Your task to perform on an android device: read, delete, or share a saved page in the chrome app Image 0: 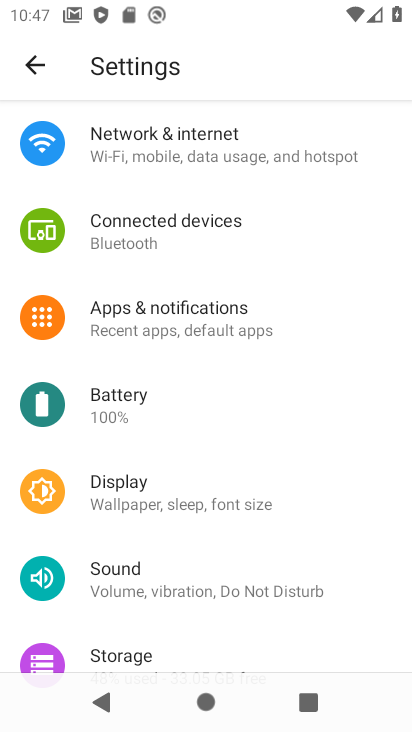
Step 0: press home button
Your task to perform on an android device: read, delete, or share a saved page in the chrome app Image 1: 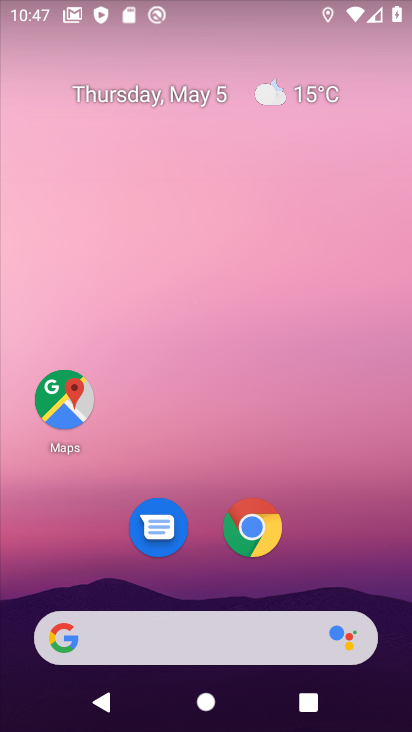
Step 1: click (200, 563)
Your task to perform on an android device: read, delete, or share a saved page in the chrome app Image 2: 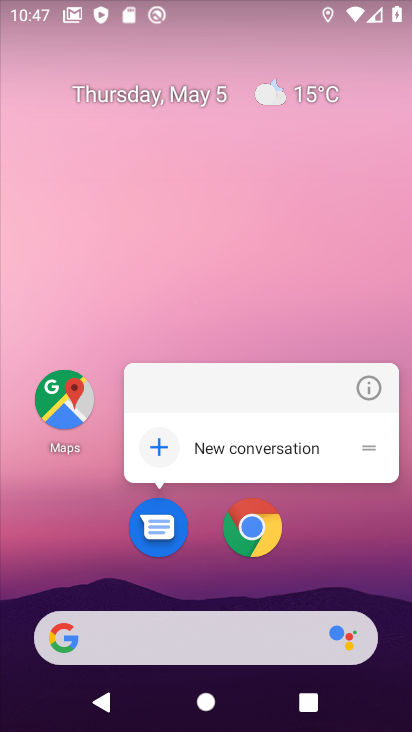
Step 2: click (258, 531)
Your task to perform on an android device: read, delete, or share a saved page in the chrome app Image 3: 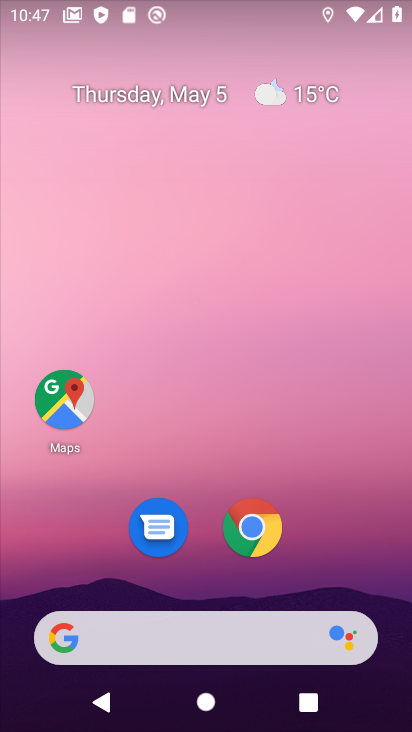
Step 3: click (258, 536)
Your task to perform on an android device: read, delete, or share a saved page in the chrome app Image 4: 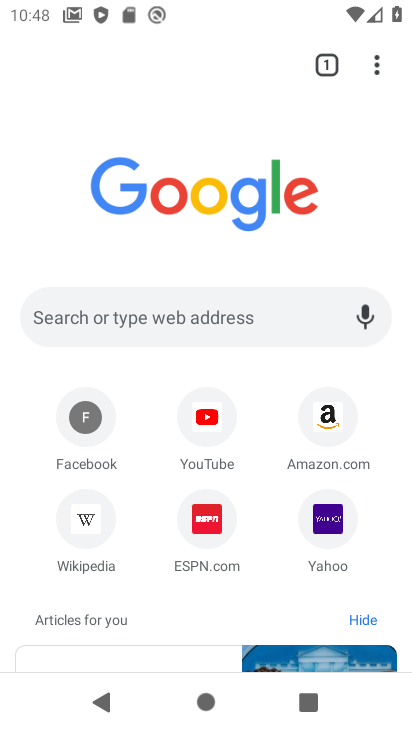
Step 4: click (380, 71)
Your task to perform on an android device: read, delete, or share a saved page in the chrome app Image 5: 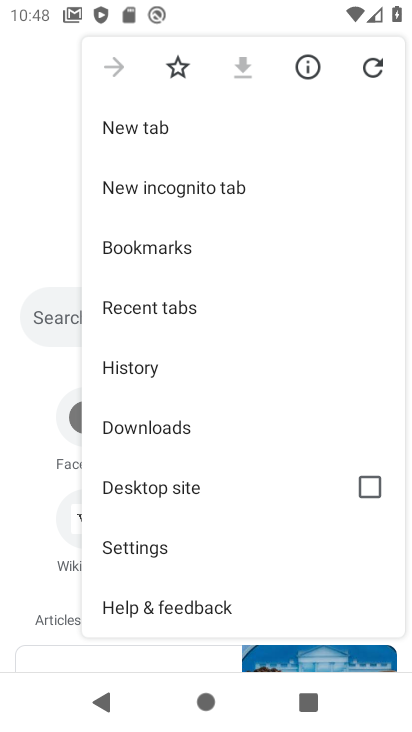
Step 5: click (163, 418)
Your task to perform on an android device: read, delete, or share a saved page in the chrome app Image 6: 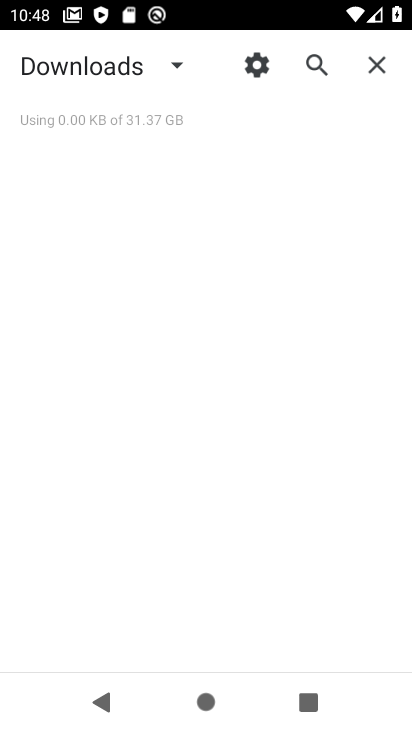
Step 6: task complete